Your task to perform on an android device: Open Maps and search for coffee Image 0: 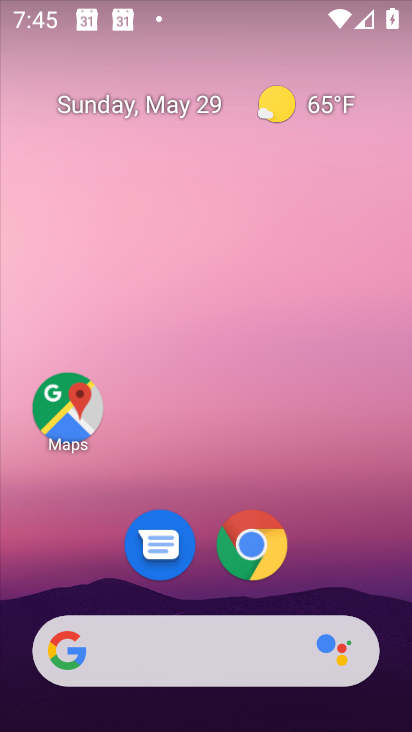
Step 0: click (57, 409)
Your task to perform on an android device: Open Maps and search for coffee Image 1: 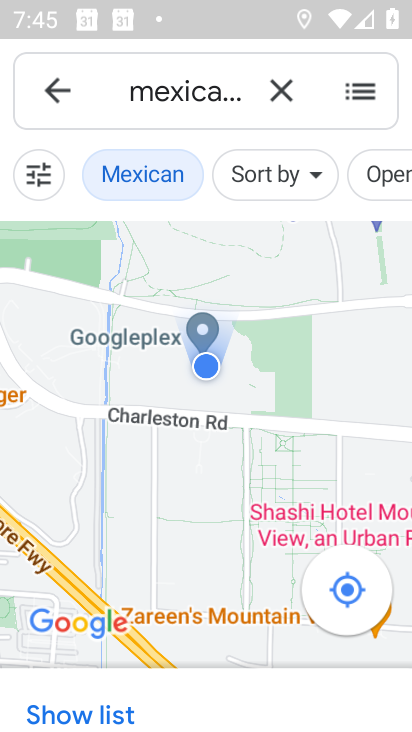
Step 1: click (269, 84)
Your task to perform on an android device: Open Maps and search for coffee Image 2: 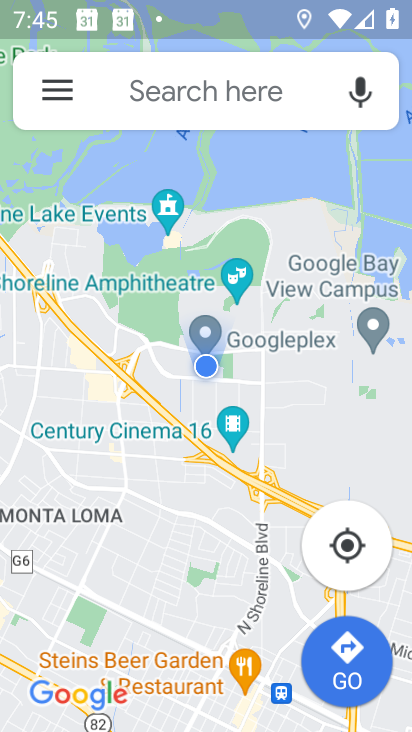
Step 2: click (255, 94)
Your task to perform on an android device: Open Maps and search for coffee Image 3: 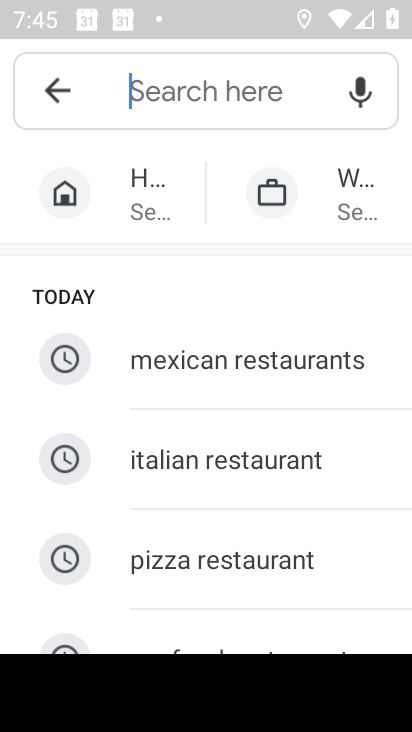
Step 3: type "coffee"
Your task to perform on an android device: Open Maps and search for coffee Image 4: 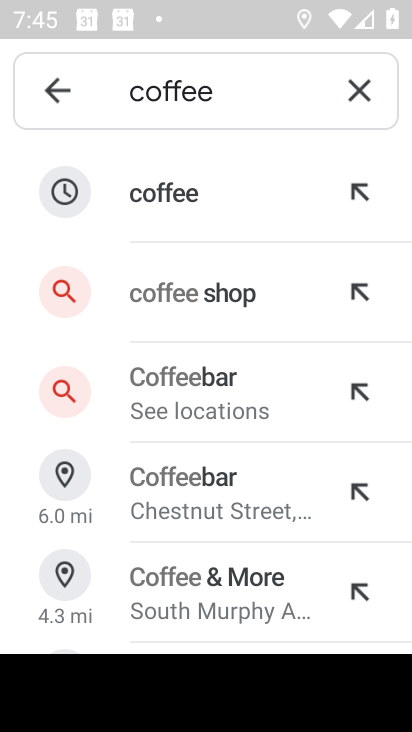
Step 4: click (225, 201)
Your task to perform on an android device: Open Maps and search for coffee Image 5: 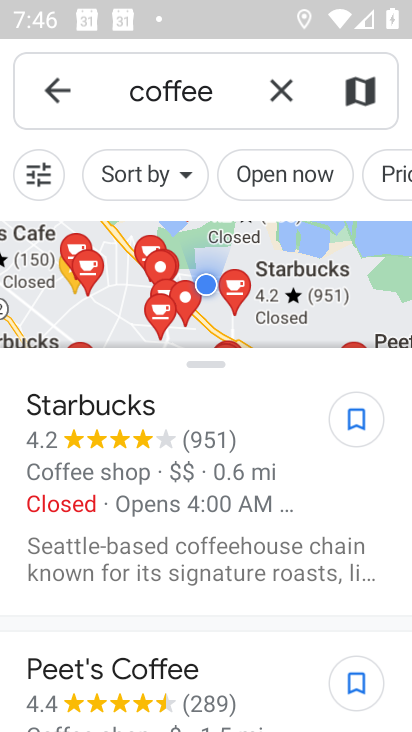
Step 5: task complete